Your task to perform on an android device: Open Chrome and go to settings Image 0: 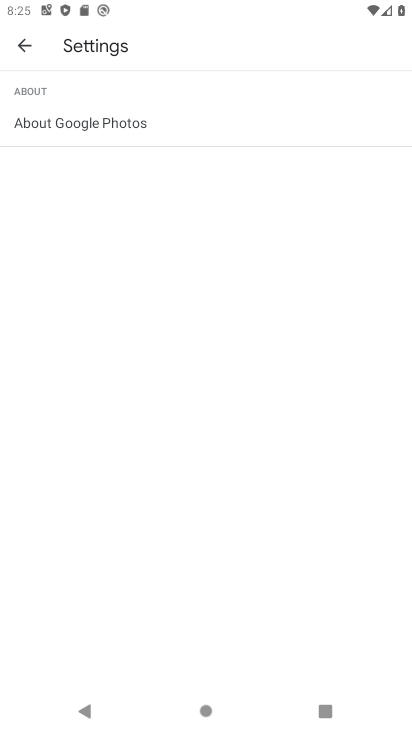
Step 0: press home button
Your task to perform on an android device: Open Chrome and go to settings Image 1: 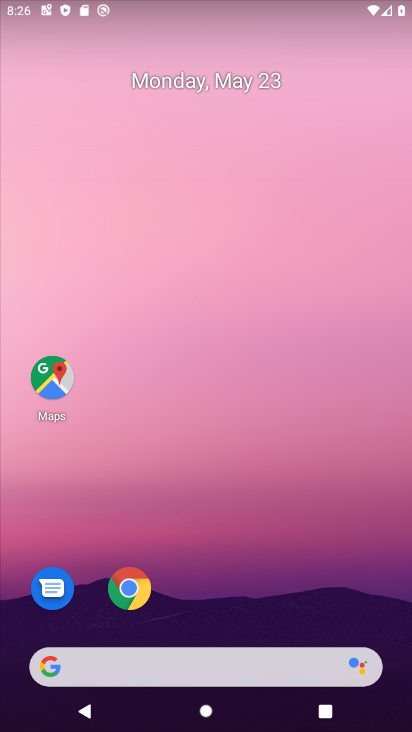
Step 1: click (129, 591)
Your task to perform on an android device: Open Chrome and go to settings Image 2: 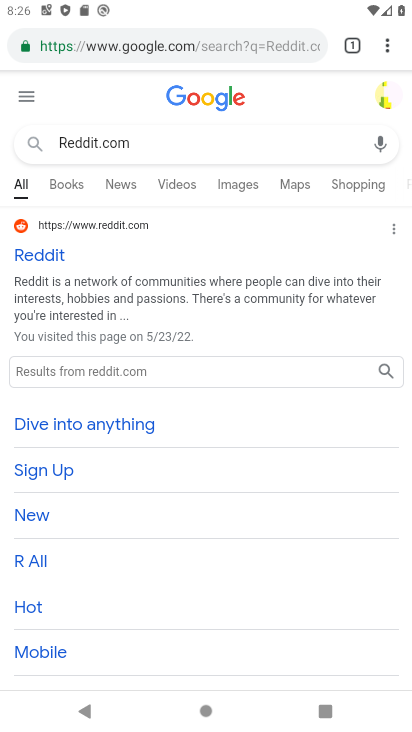
Step 2: click (384, 46)
Your task to perform on an android device: Open Chrome and go to settings Image 3: 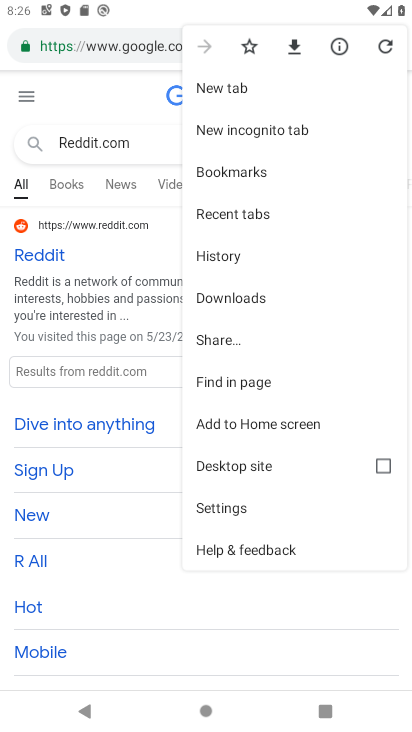
Step 3: click (229, 516)
Your task to perform on an android device: Open Chrome and go to settings Image 4: 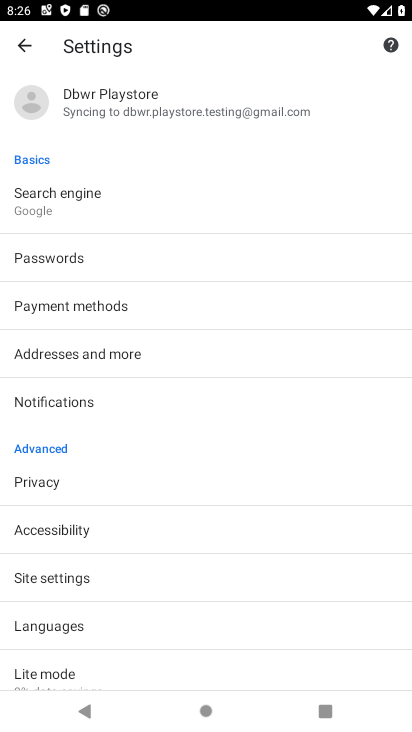
Step 4: task complete